Your task to perform on an android device: turn on improve location accuracy Image 0: 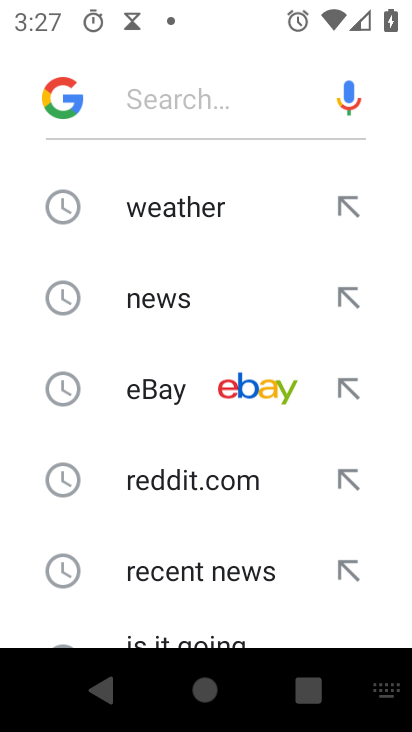
Step 0: press home button
Your task to perform on an android device: turn on improve location accuracy Image 1: 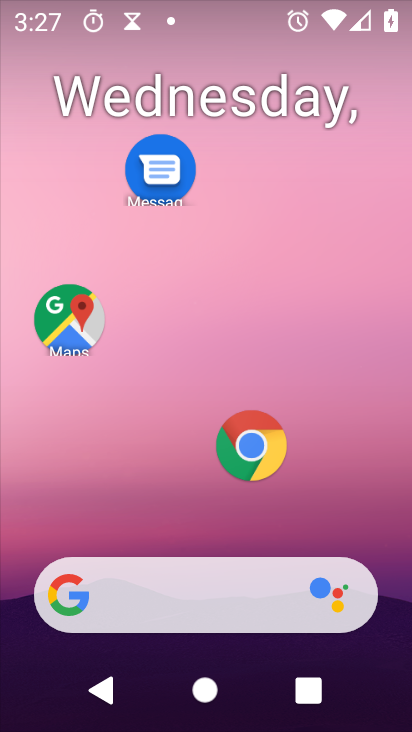
Step 1: drag from (12, 560) to (300, 148)
Your task to perform on an android device: turn on improve location accuracy Image 2: 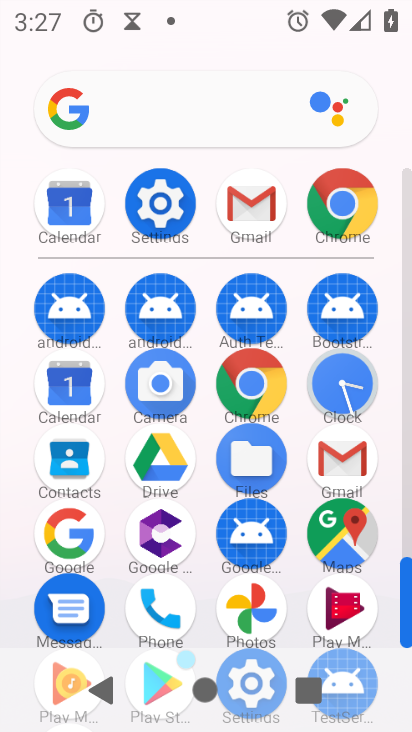
Step 2: click (156, 213)
Your task to perform on an android device: turn on improve location accuracy Image 3: 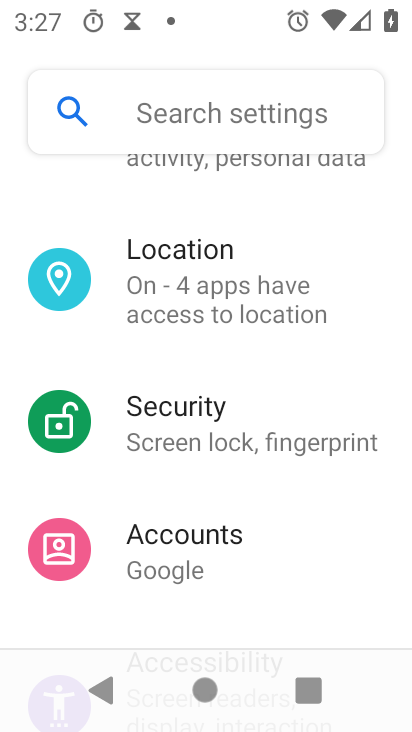
Step 3: click (243, 277)
Your task to perform on an android device: turn on improve location accuracy Image 4: 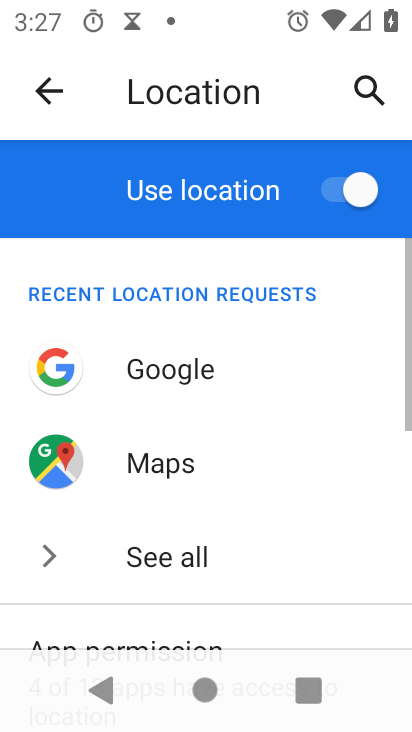
Step 4: drag from (13, 480) to (223, 155)
Your task to perform on an android device: turn on improve location accuracy Image 5: 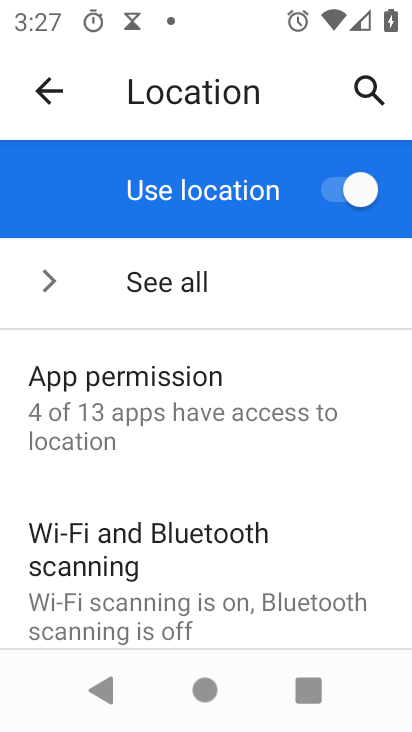
Step 5: drag from (29, 424) to (211, 137)
Your task to perform on an android device: turn on improve location accuracy Image 6: 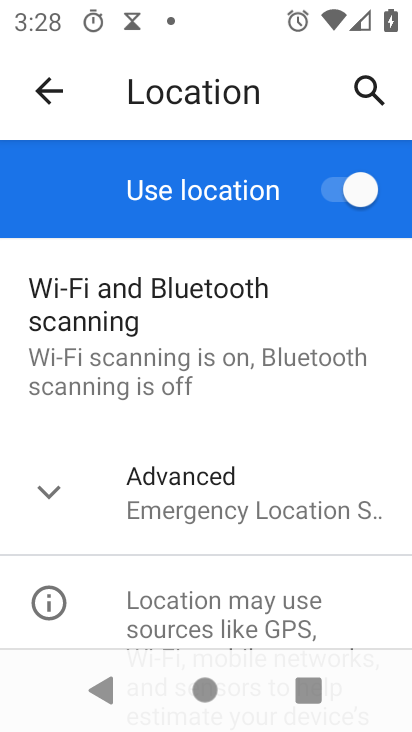
Step 6: click (236, 508)
Your task to perform on an android device: turn on improve location accuracy Image 7: 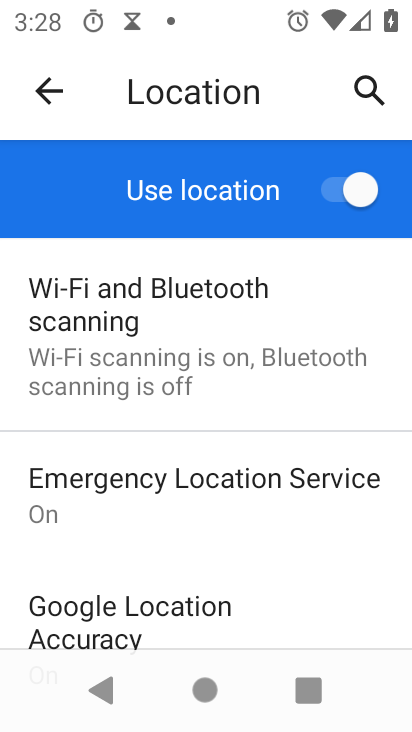
Step 7: drag from (3, 574) to (206, 214)
Your task to perform on an android device: turn on improve location accuracy Image 8: 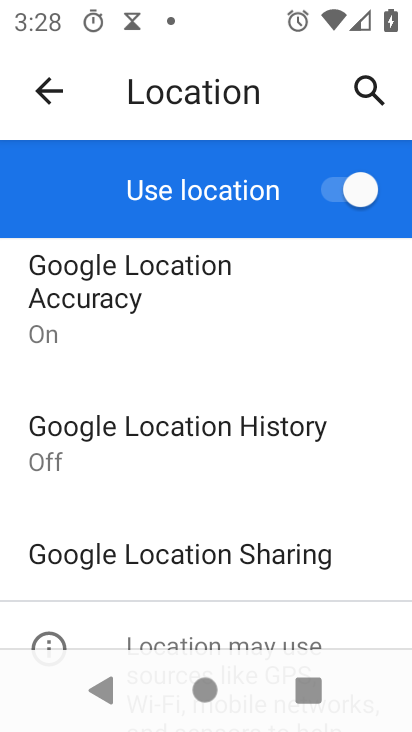
Step 8: drag from (184, 286) to (150, 429)
Your task to perform on an android device: turn on improve location accuracy Image 9: 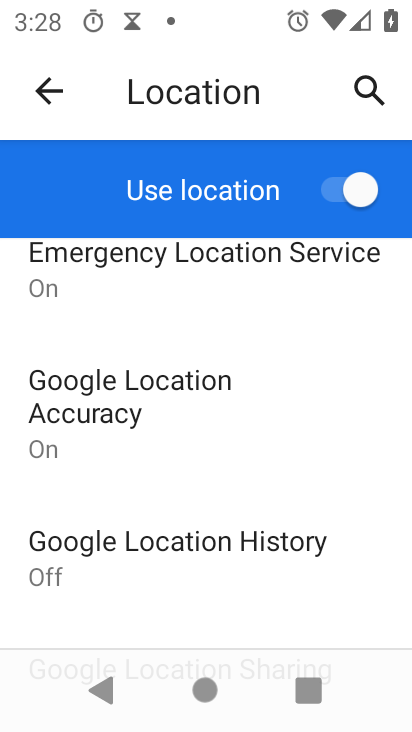
Step 9: click (105, 410)
Your task to perform on an android device: turn on improve location accuracy Image 10: 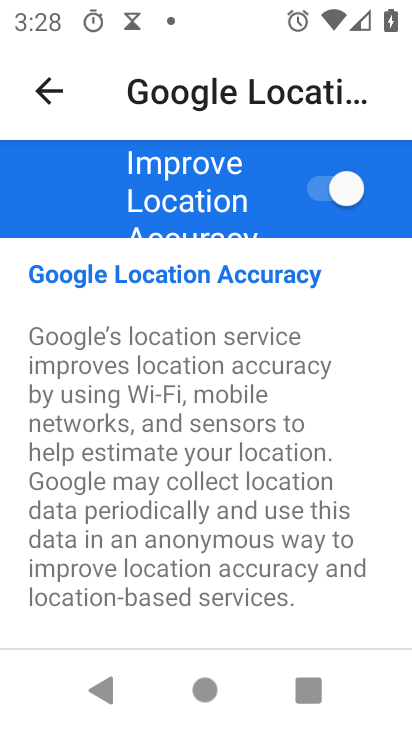
Step 10: click (358, 194)
Your task to perform on an android device: turn on improve location accuracy Image 11: 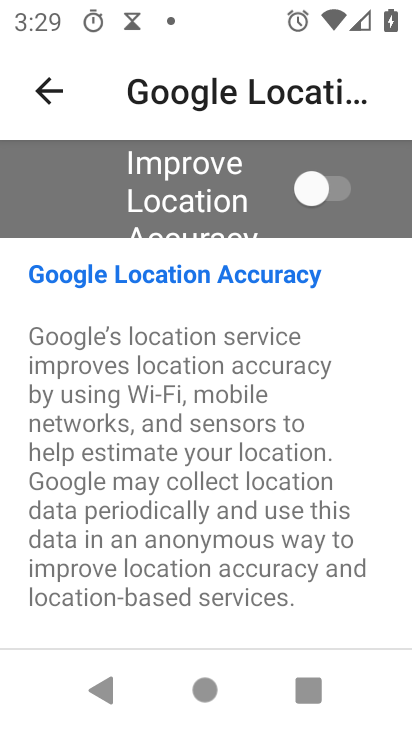
Step 11: task complete